Your task to perform on an android device: turn on location history Image 0: 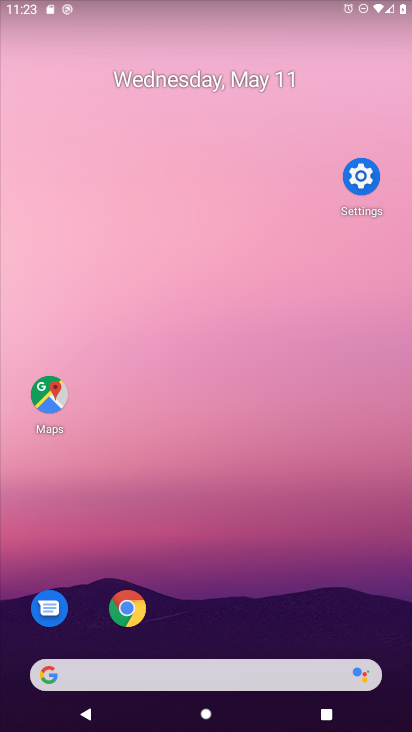
Step 0: drag from (343, 579) to (141, 117)
Your task to perform on an android device: turn on location history Image 1: 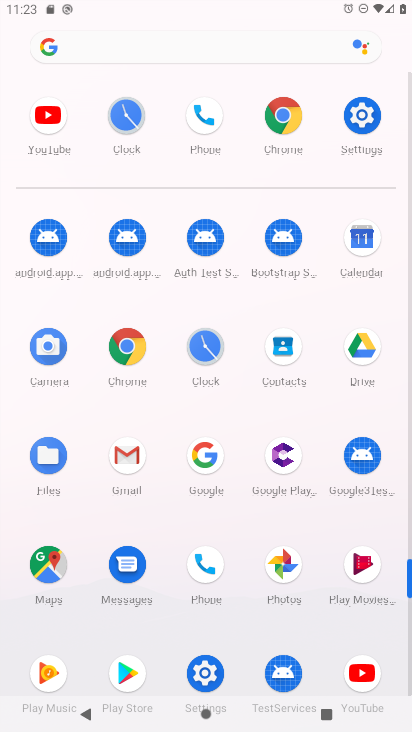
Step 1: click (49, 571)
Your task to perform on an android device: turn on location history Image 2: 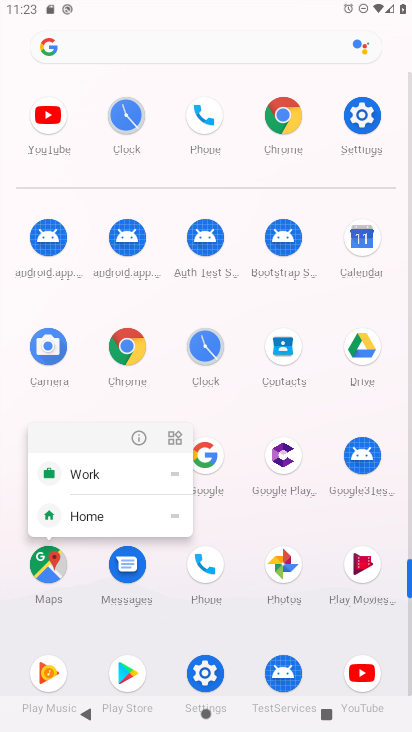
Step 2: click (50, 564)
Your task to perform on an android device: turn on location history Image 3: 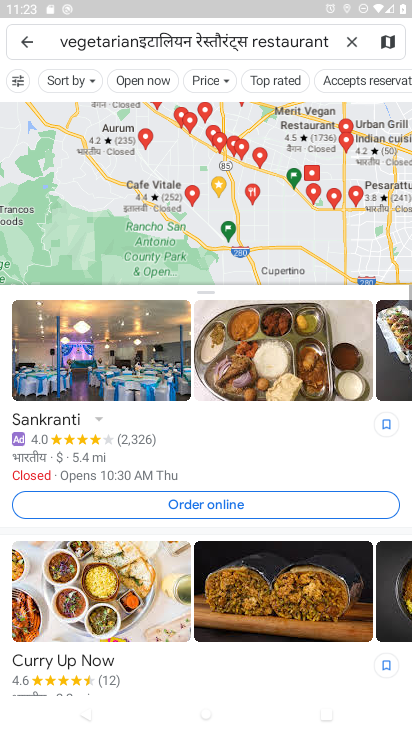
Step 3: click (29, 43)
Your task to perform on an android device: turn on location history Image 4: 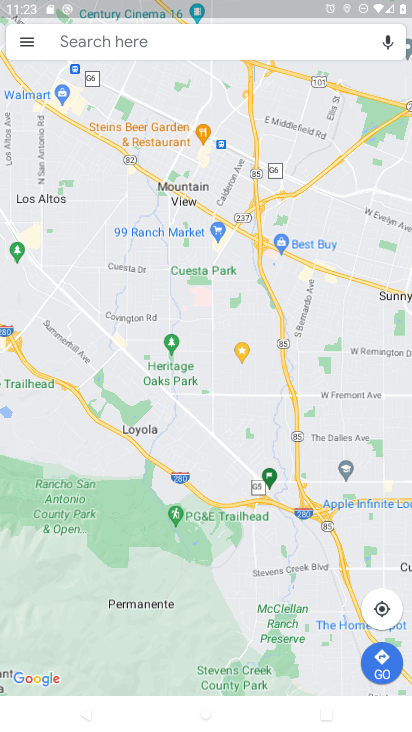
Step 4: click (25, 37)
Your task to perform on an android device: turn on location history Image 5: 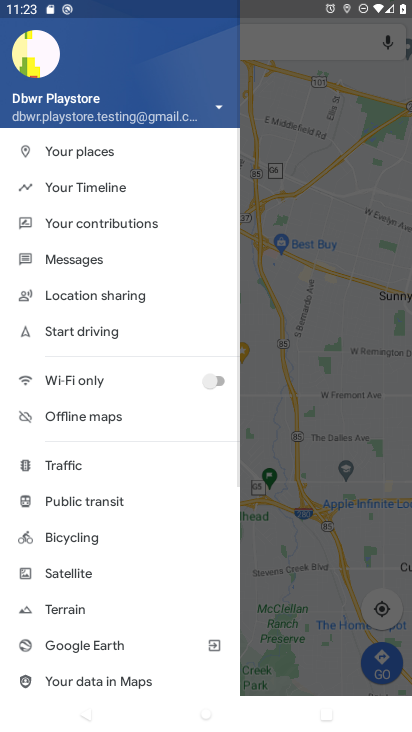
Step 5: click (79, 181)
Your task to perform on an android device: turn on location history Image 6: 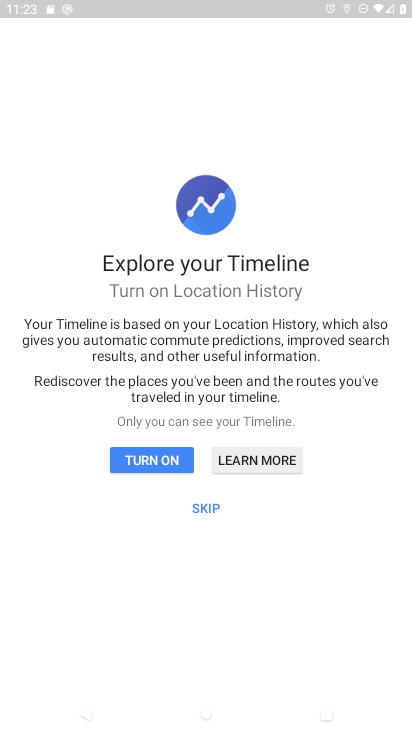
Step 6: click (155, 448)
Your task to perform on an android device: turn on location history Image 7: 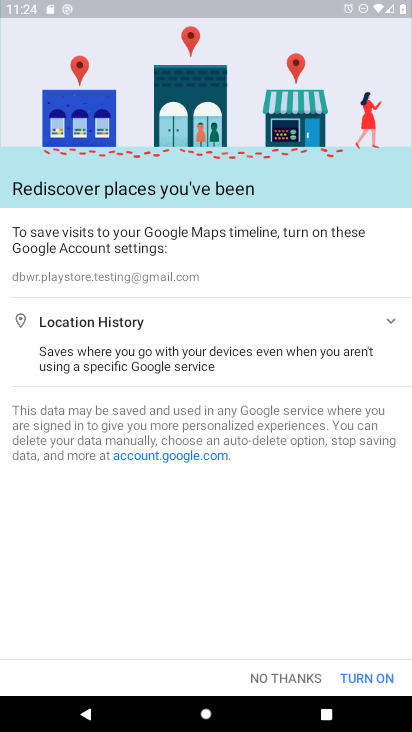
Step 7: click (282, 351)
Your task to perform on an android device: turn on location history Image 8: 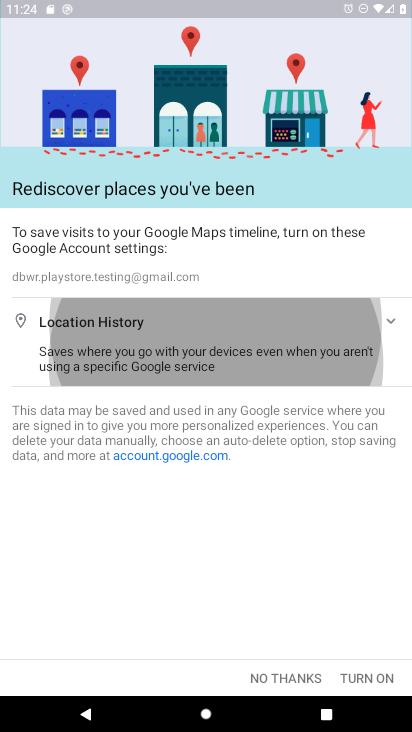
Step 8: click (282, 351)
Your task to perform on an android device: turn on location history Image 9: 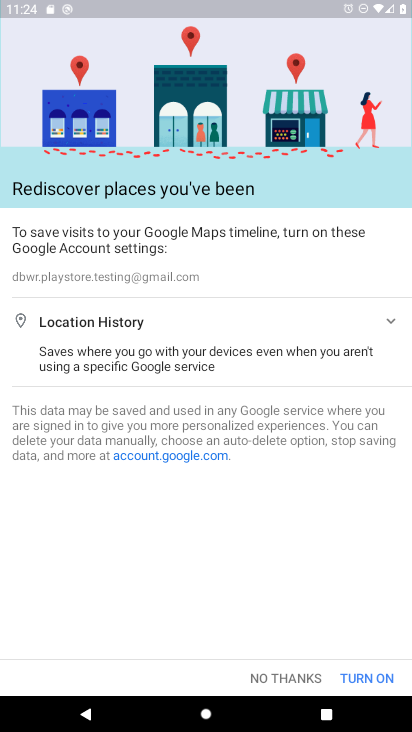
Step 9: click (239, 352)
Your task to perform on an android device: turn on location history Image 10: 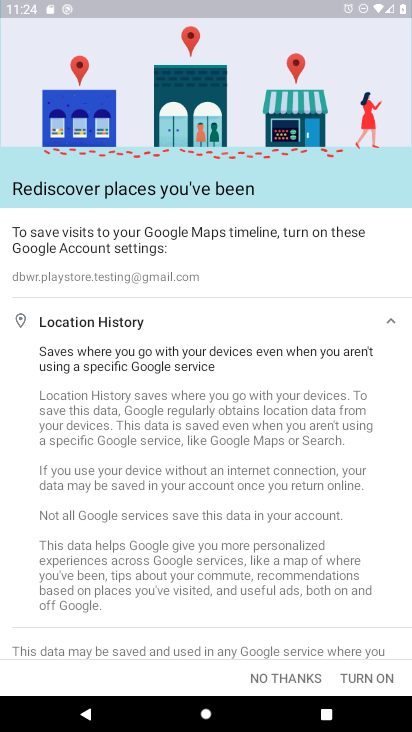
Step 10: drag from (308, 546) to (280, 295)
Your task to perform on an android device: turn on location history Image 11: 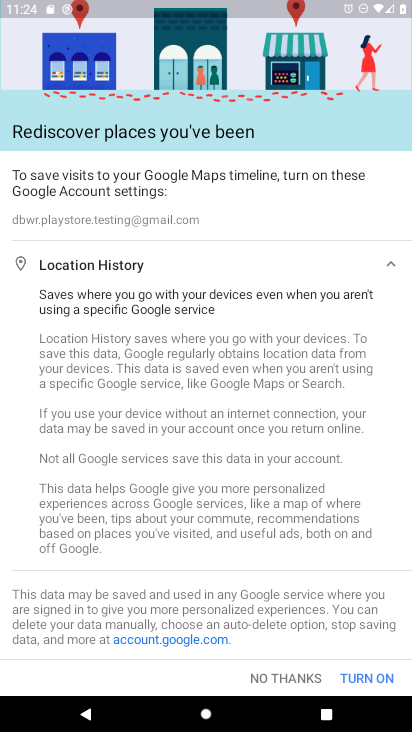
Step 11: click (359, 669)
Your task to perform on an android device: turn on location history Image 12: 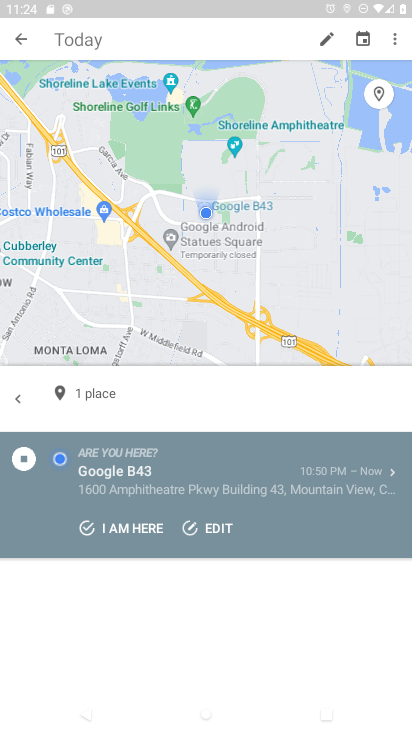
Step 12: click (396, 34)
Your task to perform on an android device: turn on location history Image 13: 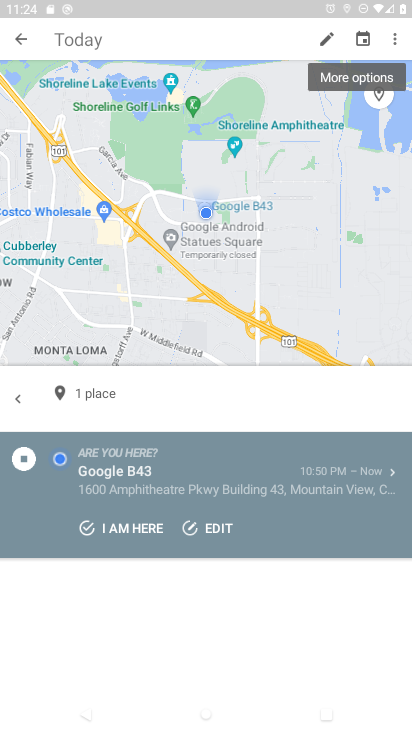
Step 13: click (391, 43)
Your task to perform on an android device: turn on location history Image 14: 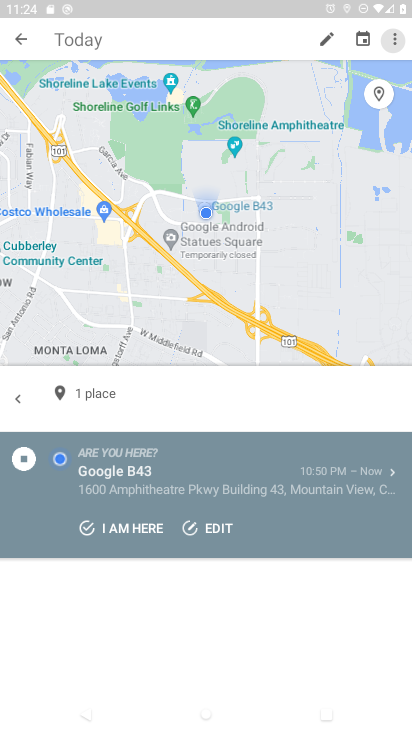
Step 14: click (391, 44)
Your task to perform on an android device: turn on location history Image 15: 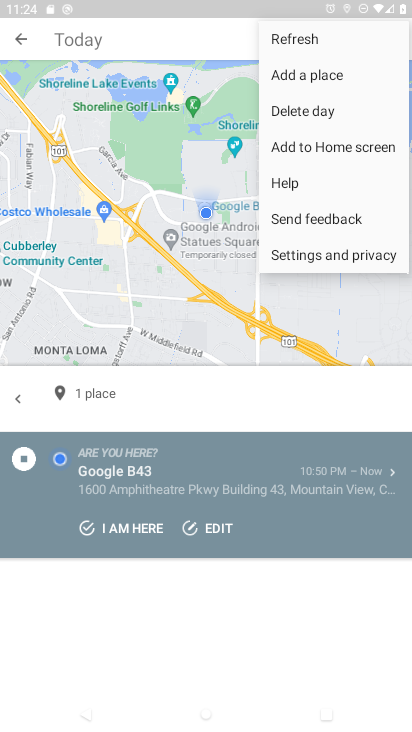
Step 15: click (330, 251)
Your task to perform on an android device: turn on location history Image 16: 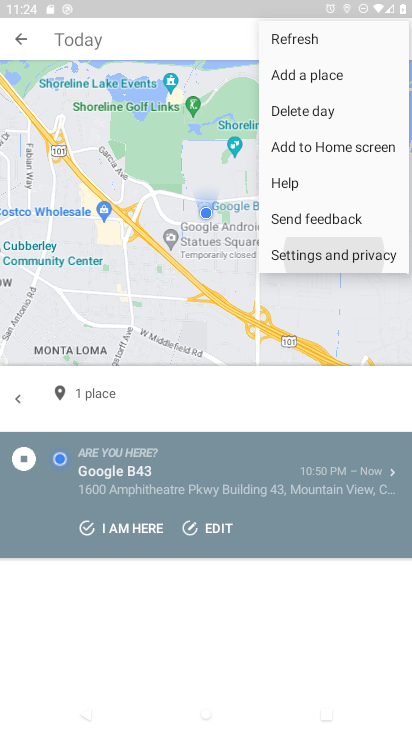
Step 16: click (332, 252)
Your task to perform on an android device: turn on location history Image 17: 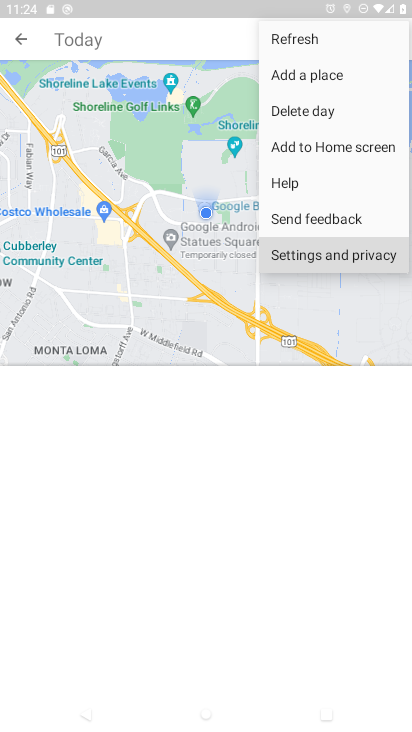
Step 17: click (333, 252)
Your task to perform on an android device: turn on location history Image 18: 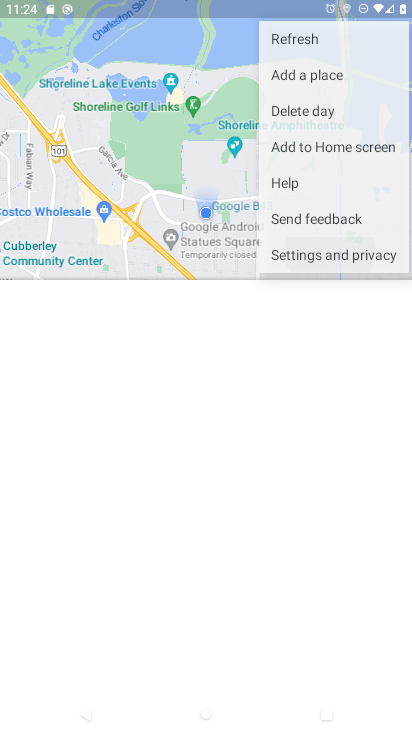
Step 18: click (333, 252)
Your task to perform on an android device: turn on location history Image 19: 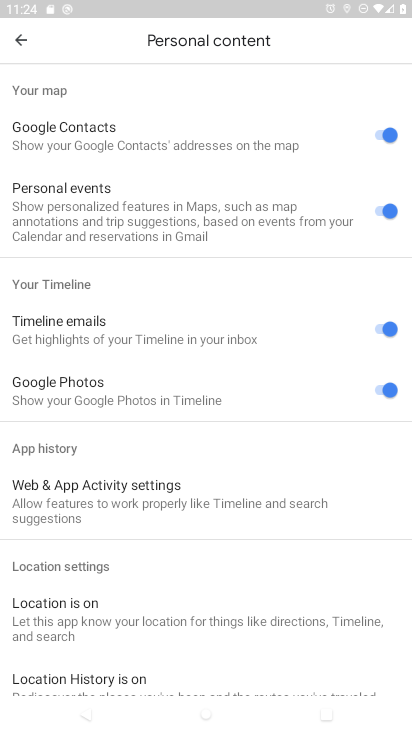
Step 19: drag from (160, 563) to (112, 236)
Your task to perform on an android device: turn on location history Image 20: 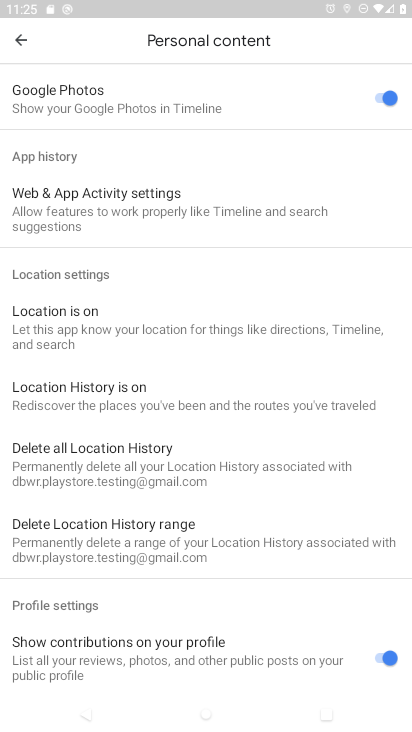
Step 20: click (74, 398)
Your task to perform on an android device: turn on location history Image 21: 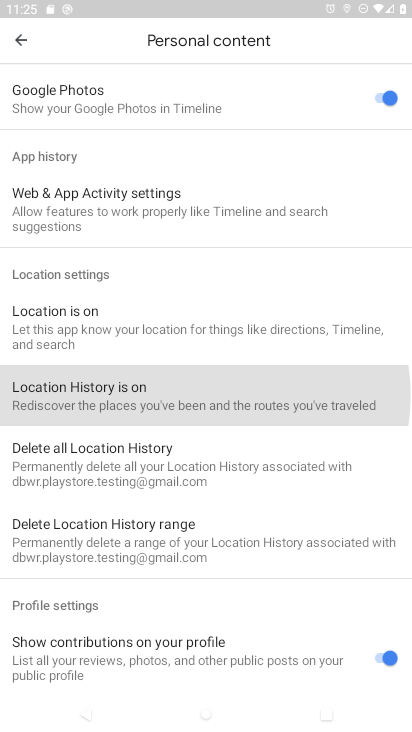
Step 21: click (88, 415)
Your task to perform on an android device: turn on location history Image 22: 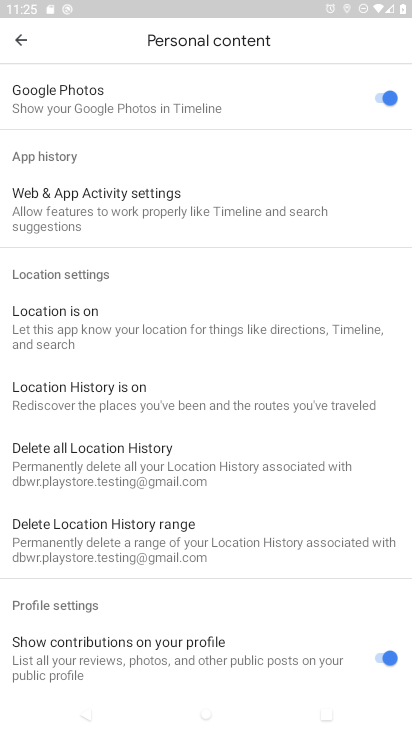
Step 22: click (88, 415)
Your task to perform on an android device: turn on location history Image 23: 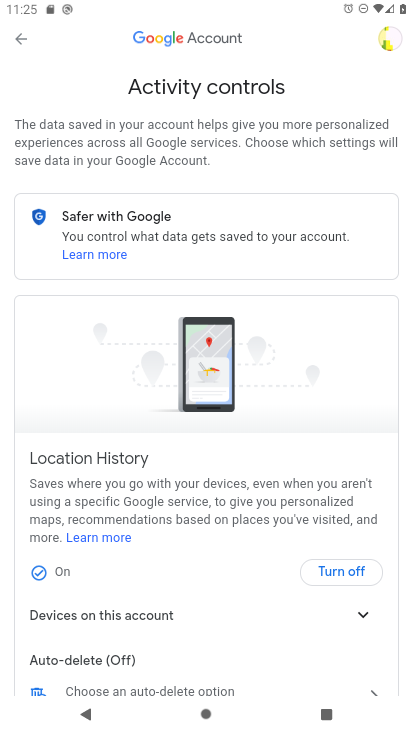
Step 23: task complete